Your task to perform on an android device: open chrome privacy settings Image 0: 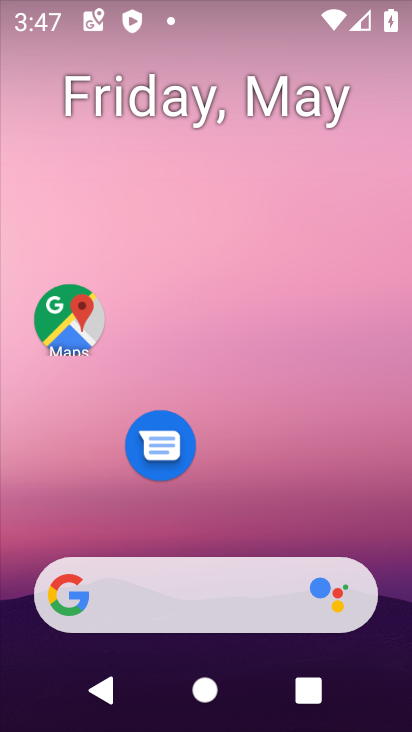
Step 0: drag from (229, 510) to (303, 13)
Your task to perform on an android device: open chrome privacy settings Image 1: 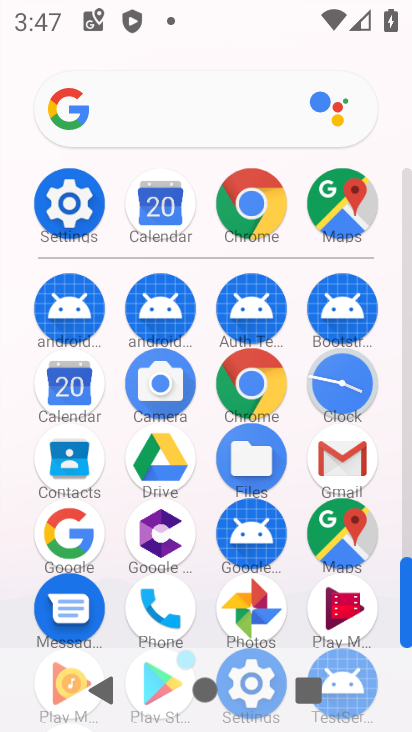
Step 1: click (259, 394)
Your task to perform on an android device: open chrome privacy settings Image 2: 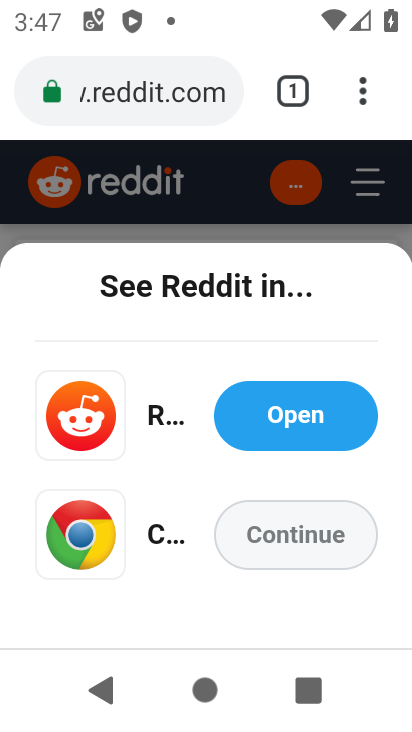
Step 2: click (357, 92)
Your task to perform on an android device: open chrome privacy settings Image 3: 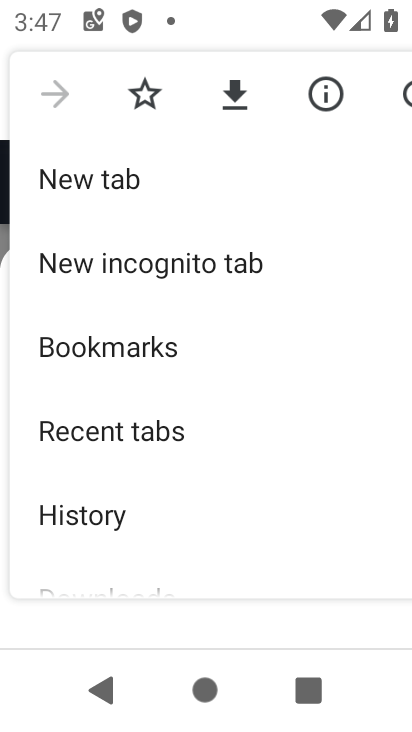
Step 3: drag from (181, 449) to (207, 126)
Your task to perform on an android device: open chrome privacy settings Image 4: 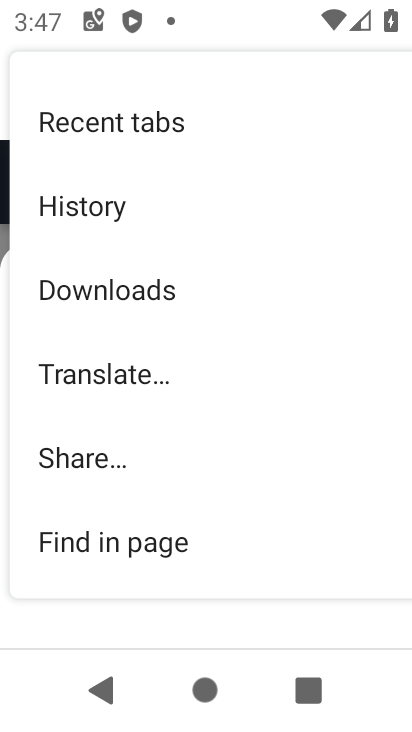
Step 4: drag from (143, 478) to (203, 133)
Your task to perform on an android device: open chrome privacy settings Image 5: 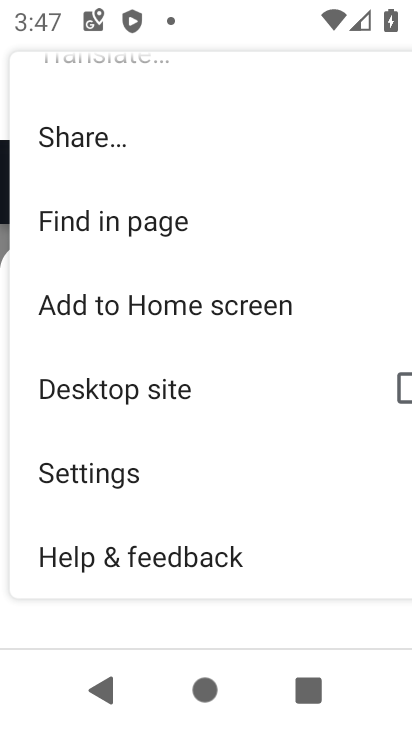
Step 5: click (108, 477)
Your task to perform on an android device: open chrome privacy settings Image 6: 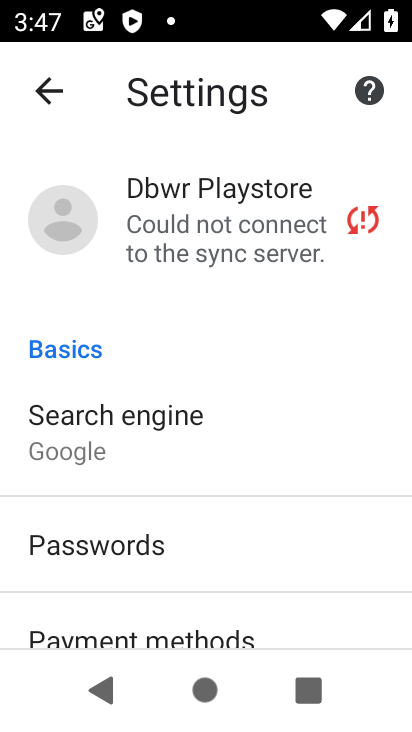
Step 6: drag from (140, 469) to (203, 165)
Your task to perform on an android device: open chrome privacy settings Image 7: 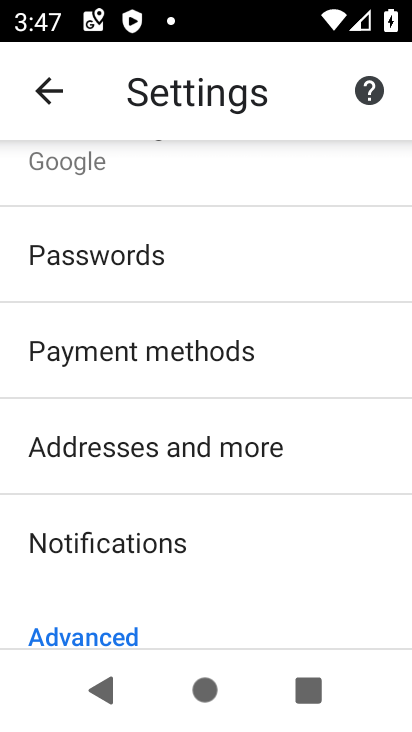
Step 7: drag from (164, 530) to (208, 231)
Your task to perform on an android device: open chrome privacy settings Image 8: 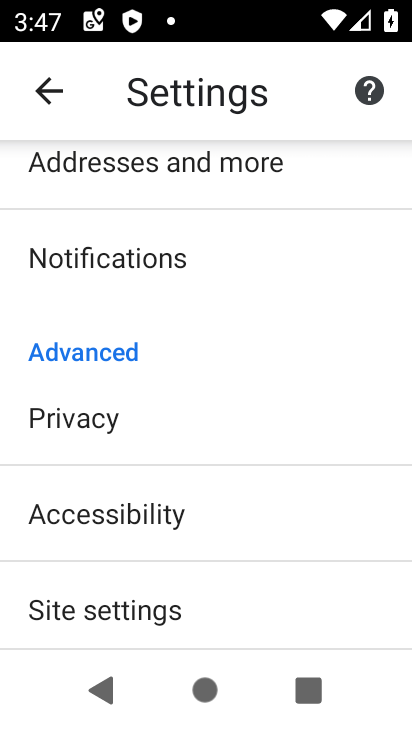
Step 8: click (132, 444)
Your task to perform on an android device: open chrome privacy settings Image 9: 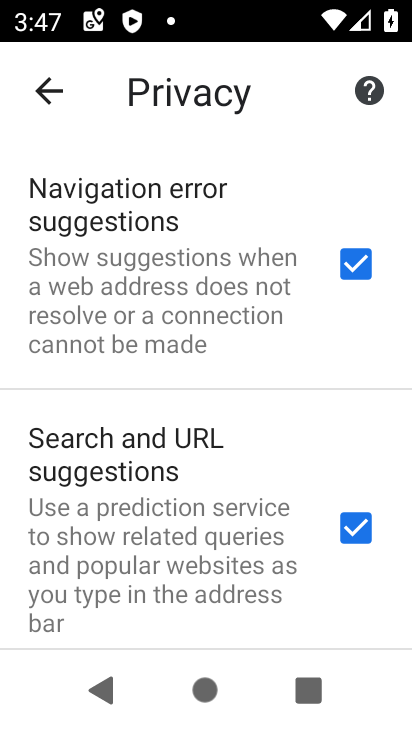
Step 9: task complete